Your task to perform on an android device: turn on the 12-hour format for clock Image 0: 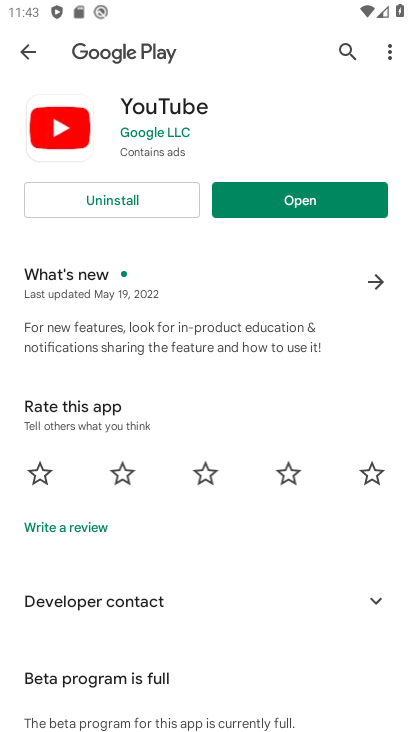
Step 0: press home button
Your task to perform on an android device: turn on the 12-hour format for clock Image 1: 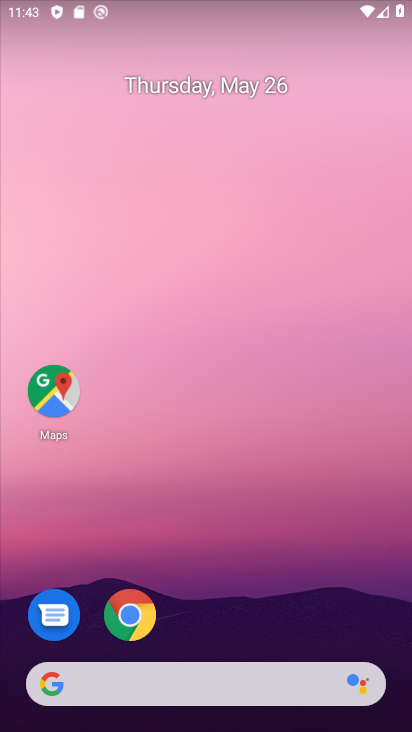
Step 1: drag from (290, 457) to (238, 240)
Your task to perform on an android device: turn on the 12-hour format for clock Image 2: 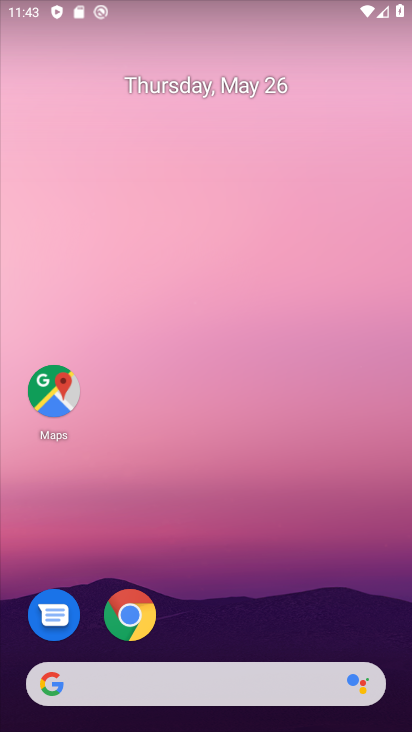
Step 2: drag from (235, 233) to (330, 6)
Your task to perform on an android device: turn on the 12-hour format for clock Image 3: 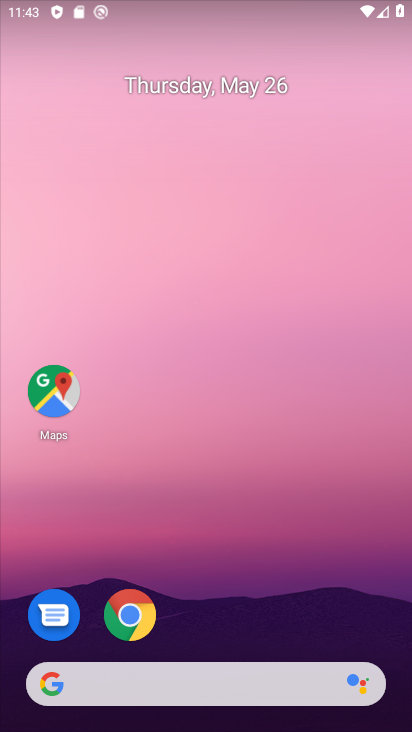
Step 3: drag from (318, 591) to (359, 114)
Your task to perform on an android device: turn on the 12-hour format for clock Image 4: 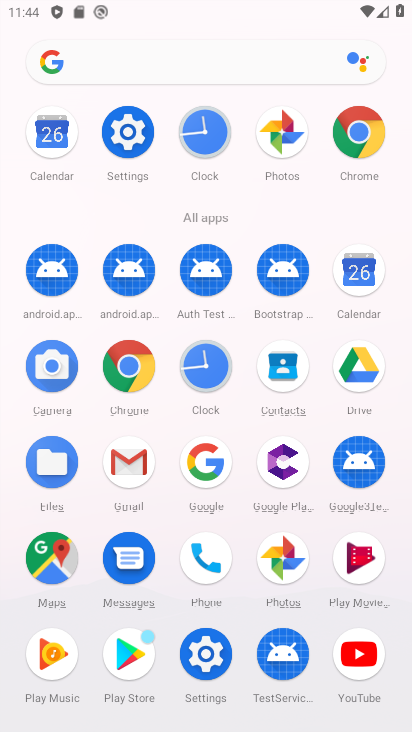
Step 4: click (193, 656)
Your task to perform on an android device: turn on the 12-hour format for clock Image 5: 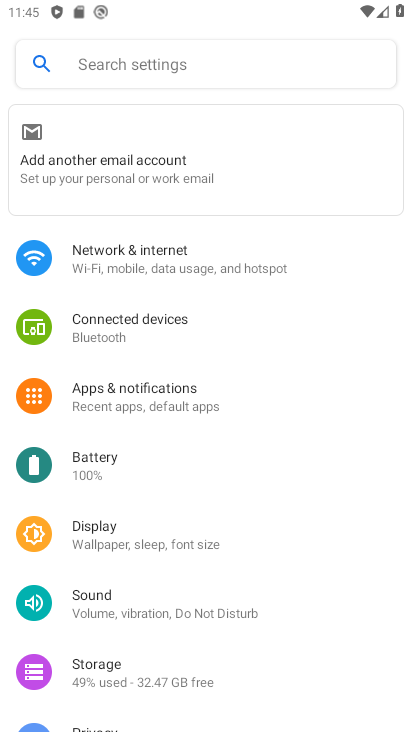
Step 5: drag from (192, 578) to (147, 393)
Your task to perform on an android device: turn on the 12-hour format for clock Image 6: 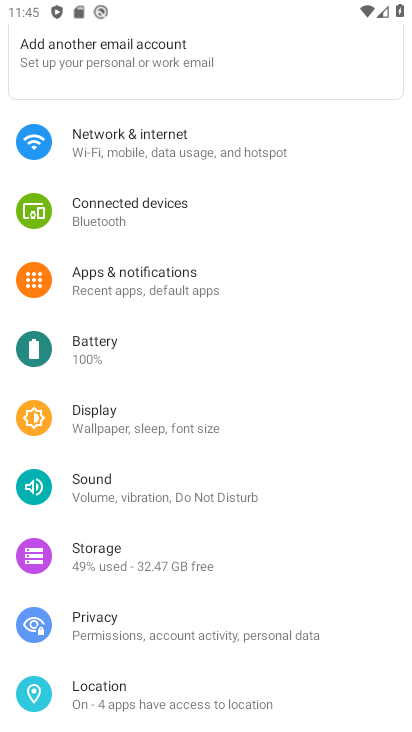
Step 6: press home button
Your task to perform on an android device: turn on the 12-hour format for clock Image 7: 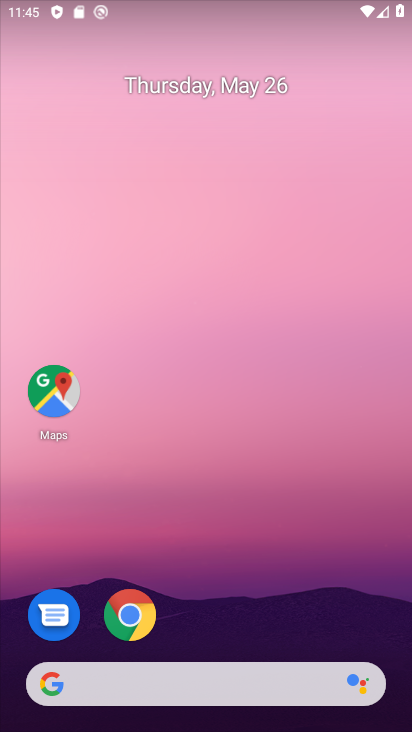
Step 7: drag from (300, 632) to (205, 36)
Your task to perform on an android device: turn on the 12-hour format for clock Image 8: 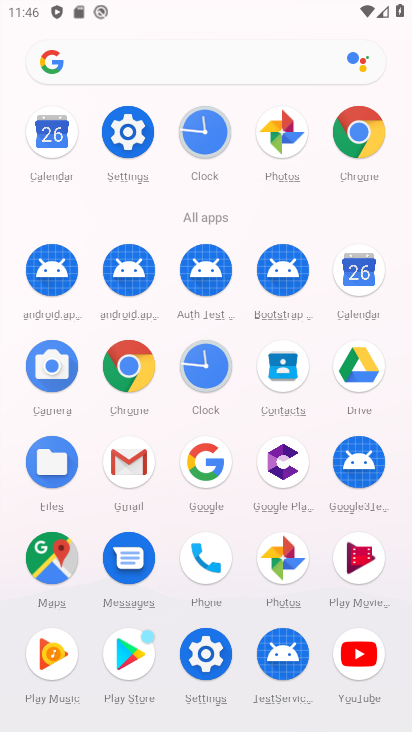
Step 8: click (203, 397)
Your task to perform on an android device: turn on the 12-hour format for clock Image 9: 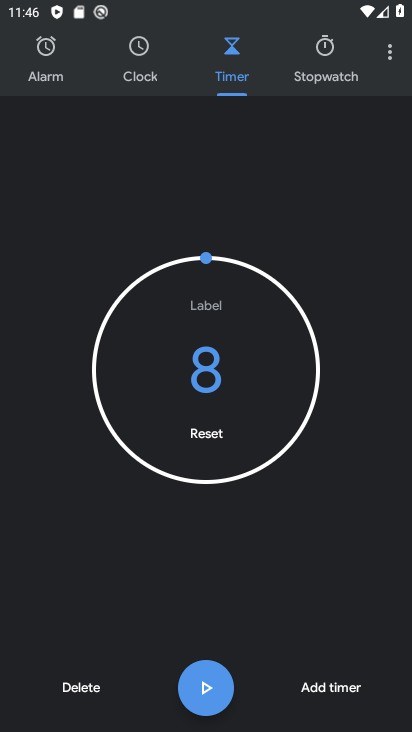
Step 9: click (391, 58)
Your task to perform on an android device: turn on the 12-hour format for clock Image 10: 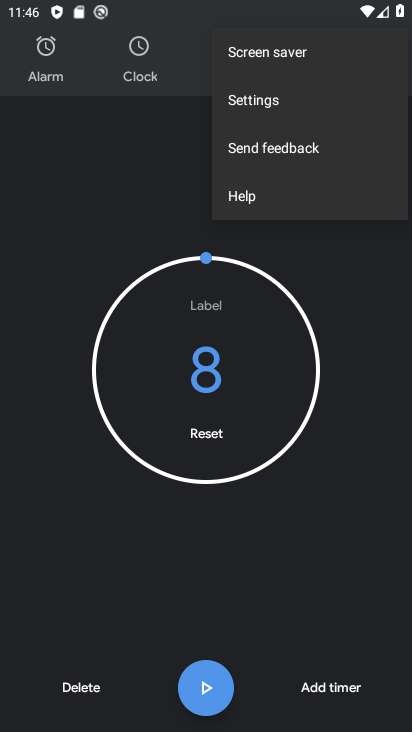
Step 10: click (323, 99)
Your task to perform on an android device: turn on the 12-hour format for clock Image 11: 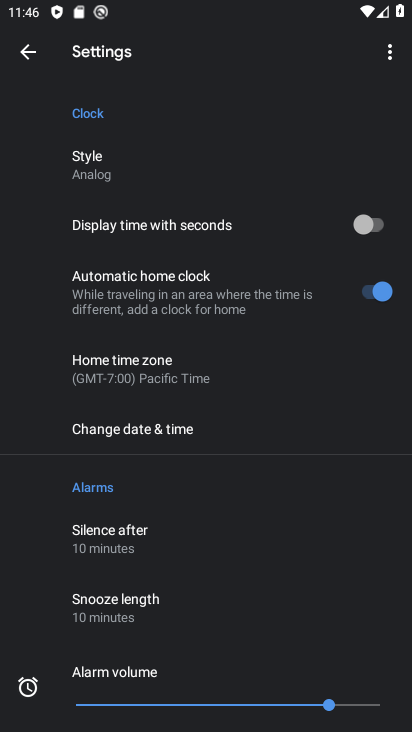
Step 11: click (136, 450)
Your task to perform on an android device: turn on the 12-hour format for clock Image 12: 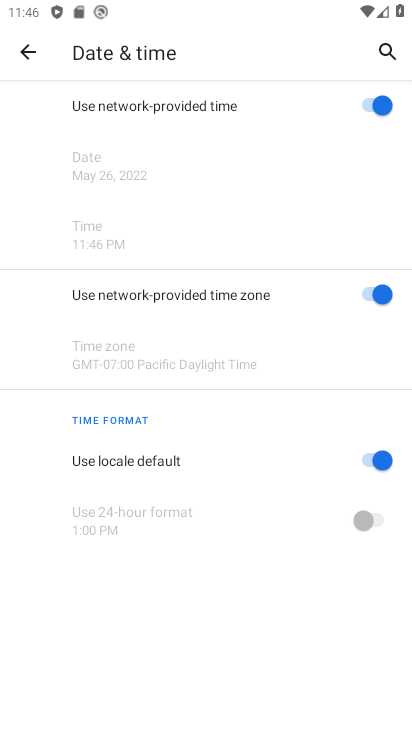
Step 12: click (238, 457)
Your task to perform on an android device: turn on the 12-hour format for clock Image 13: 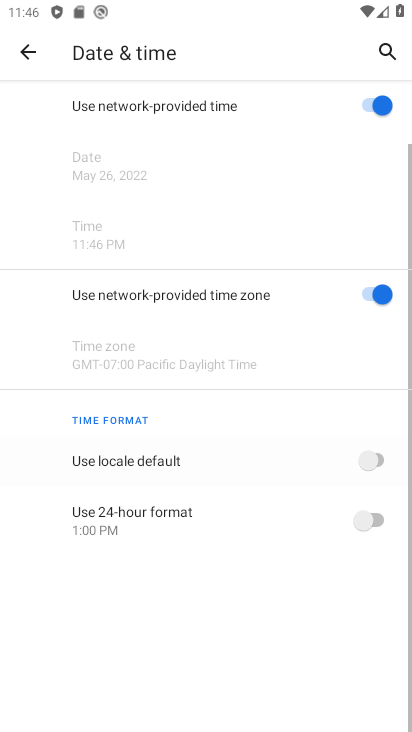
Step 13: click (231, 516)
Your task to perform on an android device: turn on the 12-hour format for clock Image 14: 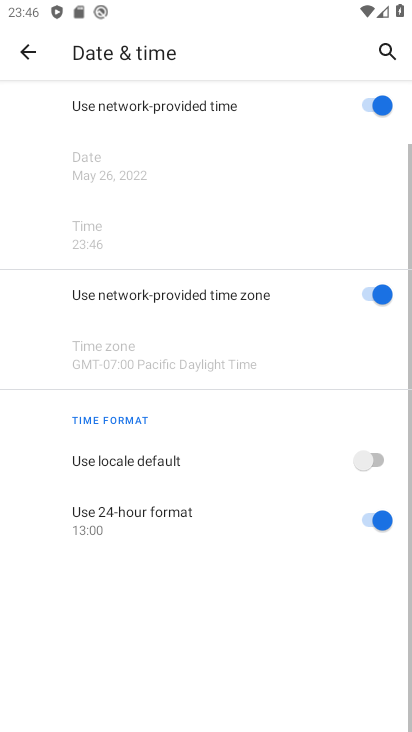
Step 14: task complete